Your task to perform on an android device: Go to network settings Image 0: 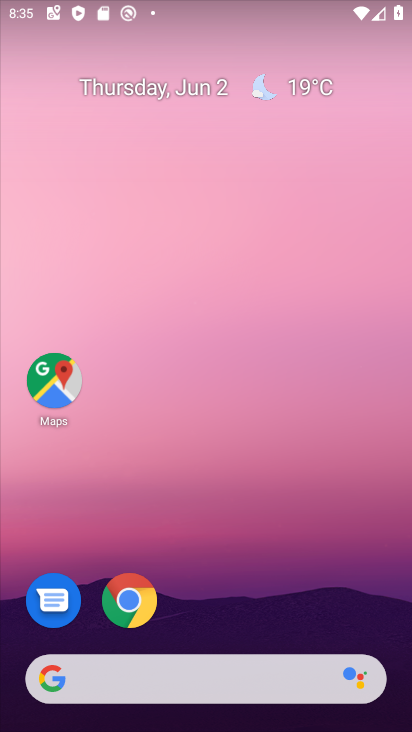
Step 0: drag from (313, 617) to (332, 243)
Your task to perform on an android device: Go to network settings Image 1: 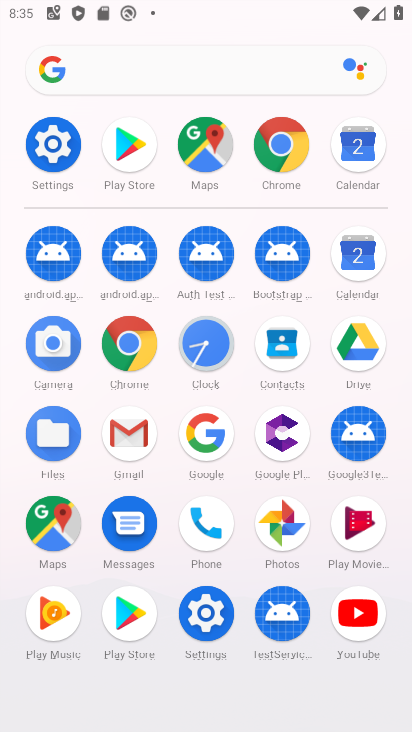
Step 1: click (60, 168)
Your task to perform on an android device: Go to network settings Image 2: 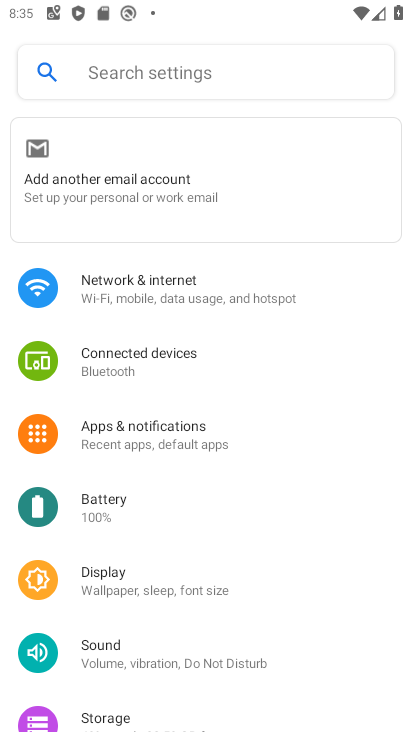
Step 2: drag from (347, 482) to (356, 398)
Your task to perform on an android device: Go to network settings Image 3: 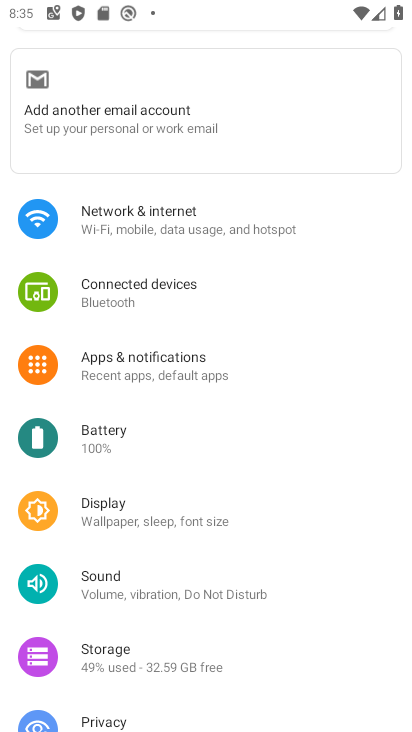
Step 3: drag from (357, 515) to (348, 380)
Your task to perform on an android device: Go to network settings Image 4: 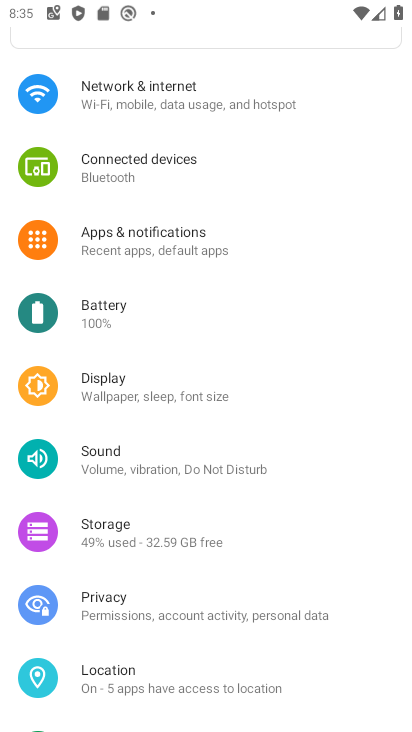
Step 4: drag from (338, 511) to (338, 359)
Your task to perform on an android device: Go to network settings Image 5: 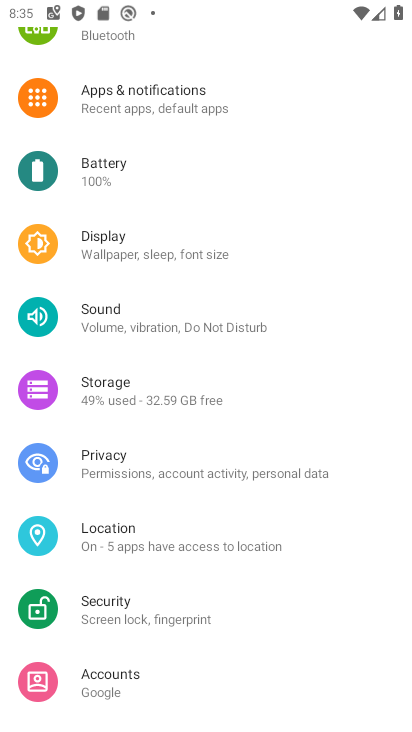
Step 5: drag from (332, 554) to (358, 363)
Your task to perform on an android device: Go to network settings Image 6: 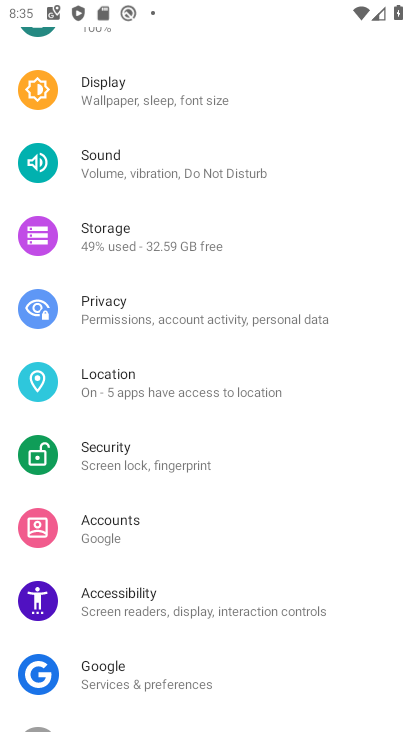
Step 6: drag from (350, 496) to (354, 376)
Your task to perform on an android device: Go to network settings Image 7: 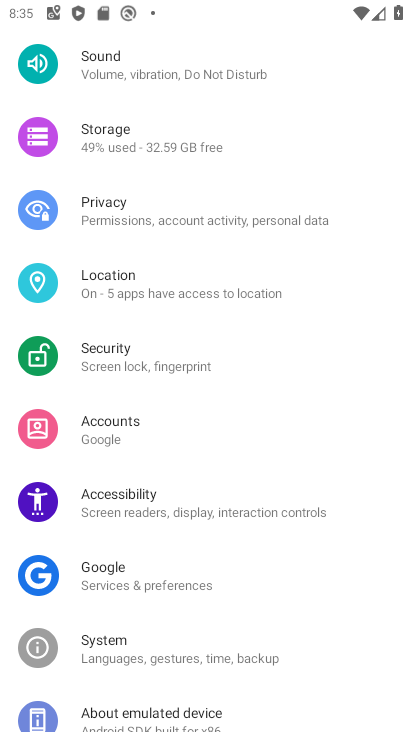
Step 7: drag from (367, 260) to (361, 344)
Your task to perform on an android device: Go to network settings Image 8: 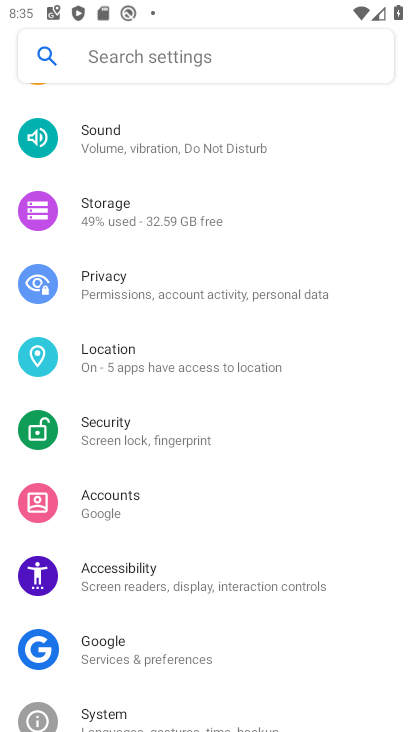
Step 8: drag from (359, 218) to (360, 297)
Your task to perform on an android device: Go to network settings Image 9: 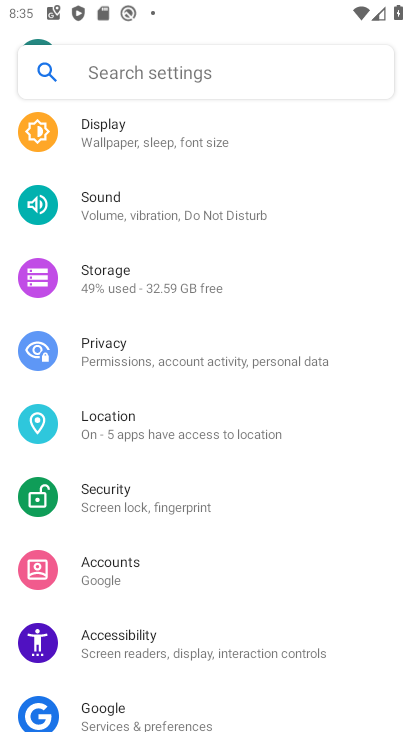
Step 9: drag from (358, 211) to (360, 299)
Your task to perform on an android device: Go to network settings Image 10: 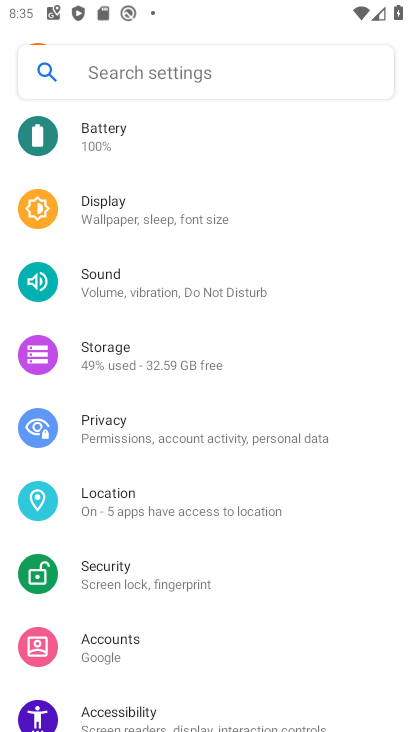
Step 10: drag from (359, 221) to (363, 309)
Your task to perform on an android device: Go to network settings Image 11: 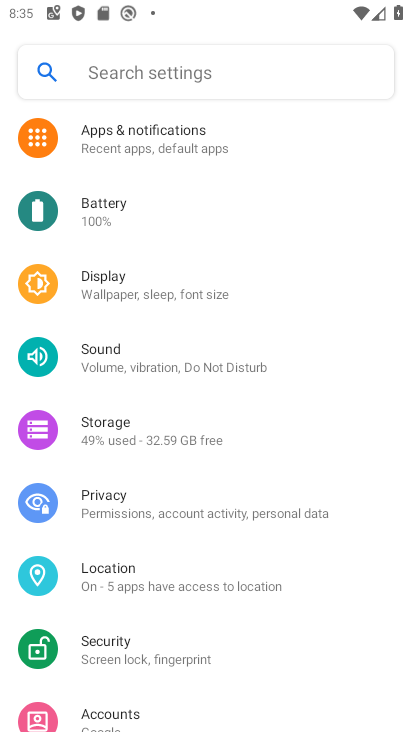
Step 11: drag from (363, 175) to (380, 293)
Your task to perform on an android device: Go to network settings Image 12: 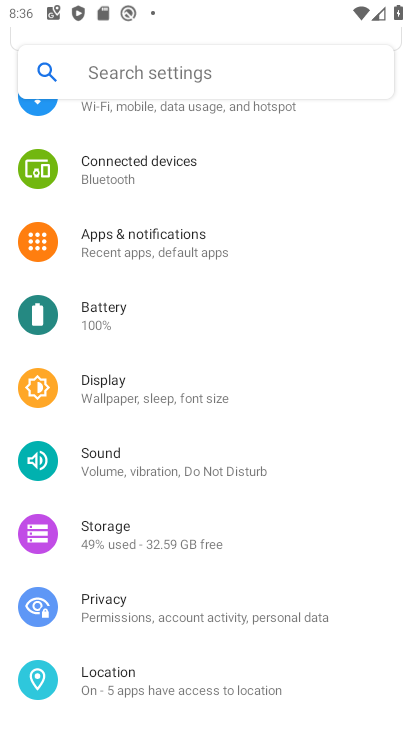
Step 12: drag from (341, 186) to (341, 297)
Your task to perform on an android device: Go to network settings Image 13: 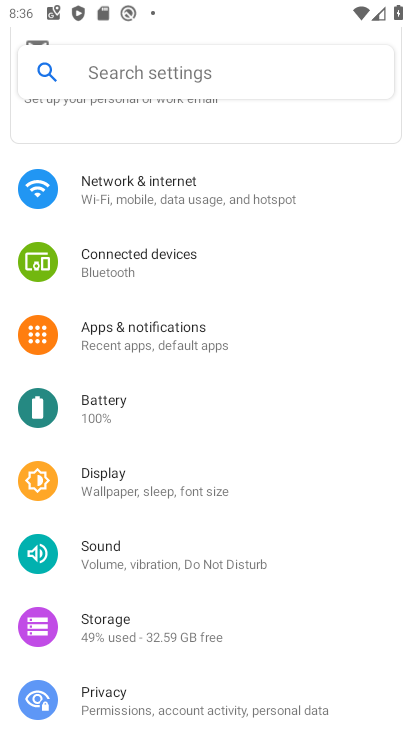
Step 13: drag from (347, 197) to (352, 356)
Your task to perform on an android device: Go to network settings Image 14: 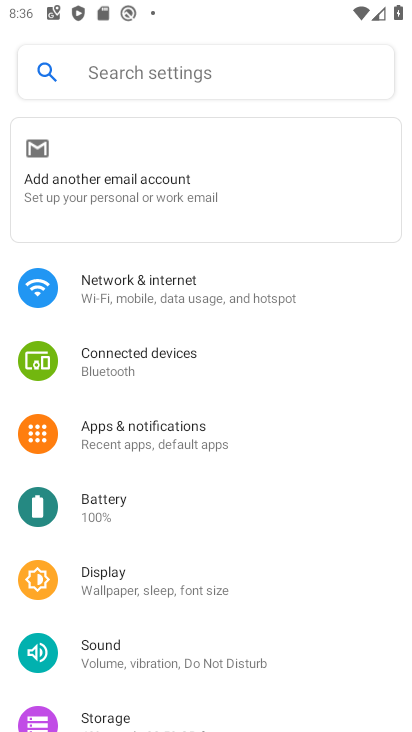
Step 14: click (241, 303)
Your task to perform on an android device: Go to network settings Image 15: 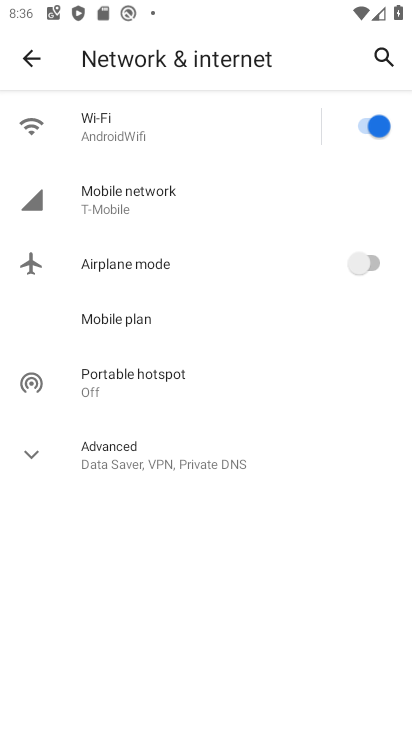
Step 15: click (149, 199)
Your task to perform on an android device: Go to network settings Image 16: 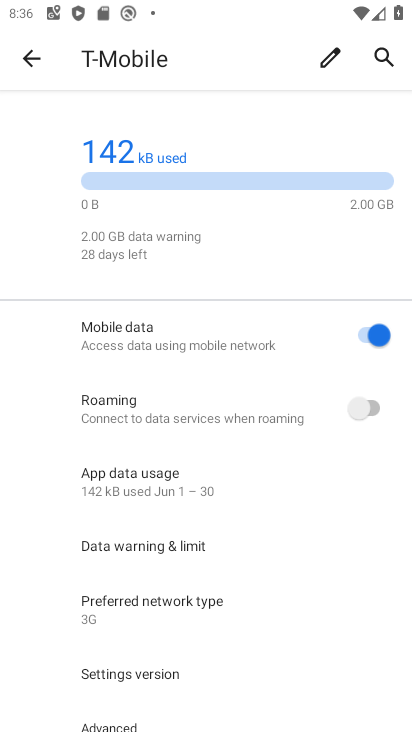
Step 16: task complete